Your task to perform on an android device: Open Google Maps and go to "Timeline" Image 0: 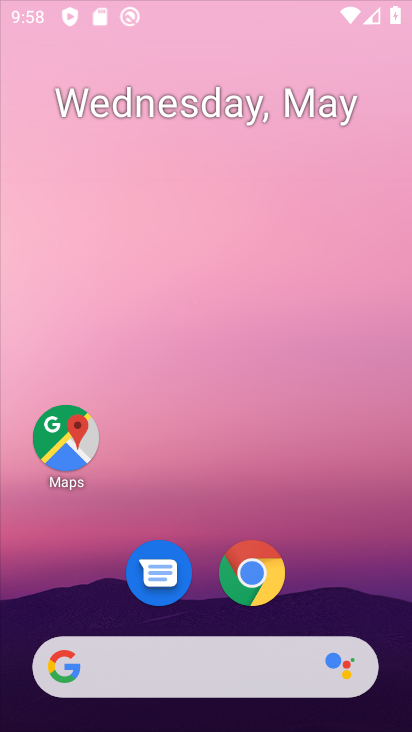
Step 0: drag from (311, 557) to (112, 86)
Your task to perform on an android device: Open Google Maps and go to "Timeline" Image 1: 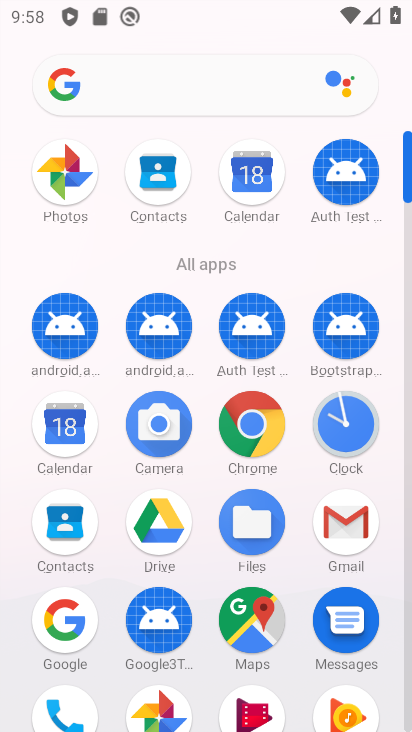
Step 1: click (251, 629)
Your task to perform on an android device: Open Google Maps and go to "Timeline" Image 2: 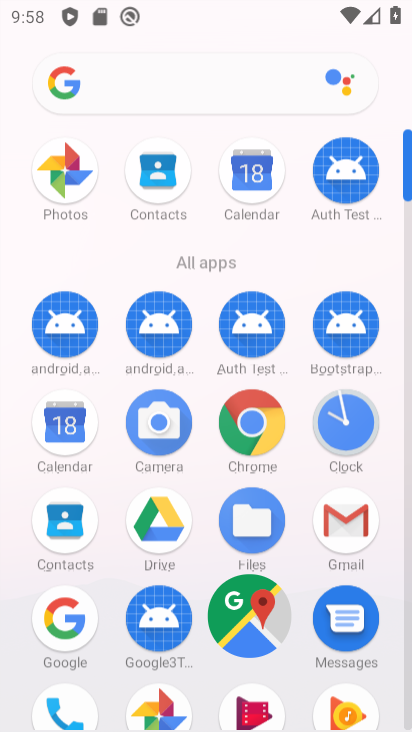
Step 2: click (251, 629)
Your task to perform on an android device: Open Google Maps and go to "Timeline" Image 3: 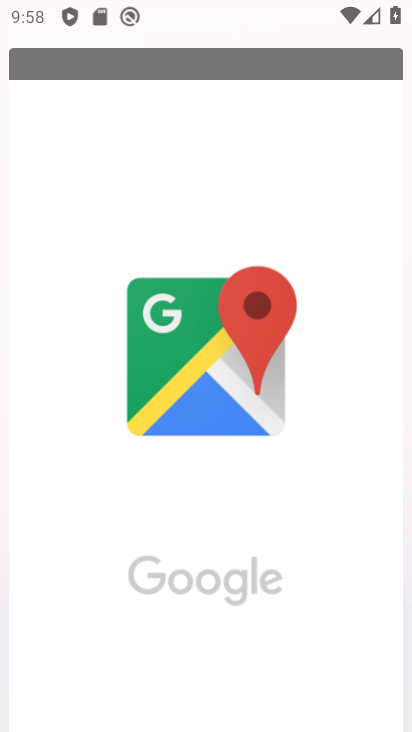
Step 3: click (251, 629)
Your task to perform on an android device: Open Google Maps and go to "Timeline" Image 4: 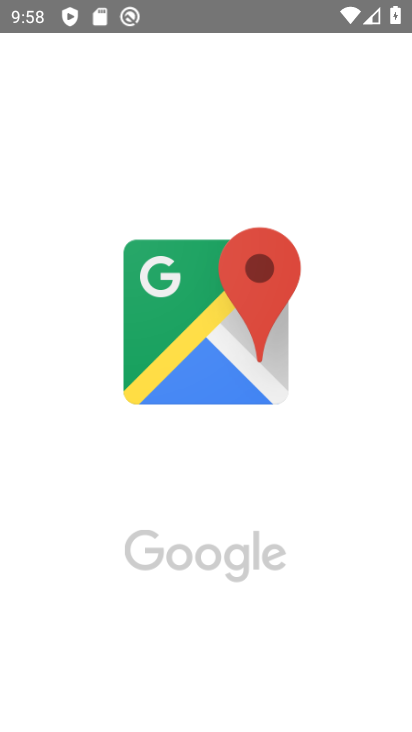
Step 4: click (251, 629)
Your task to perform on an android device: Open Google Maps and go to "Timeline" Image 5: 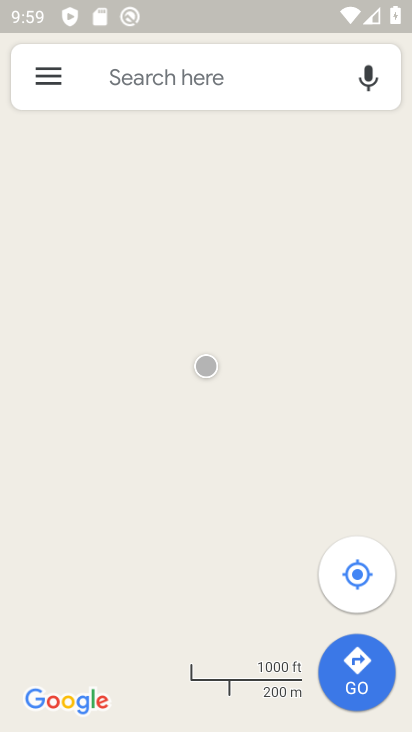
Step 5: click (51, 66)
Your task to perform on an android device: Open Google Maps and go to "Timeline" Image 6: 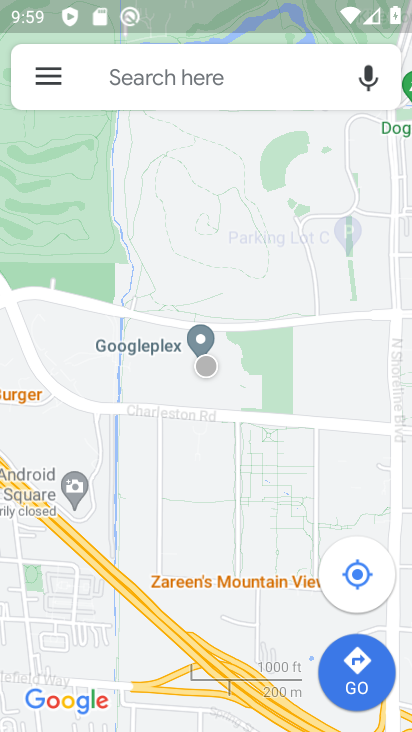
Step 6: click (59, 76)
Your task to perform on an android device: Open Google Maps and go to "Timeline" Image 7: 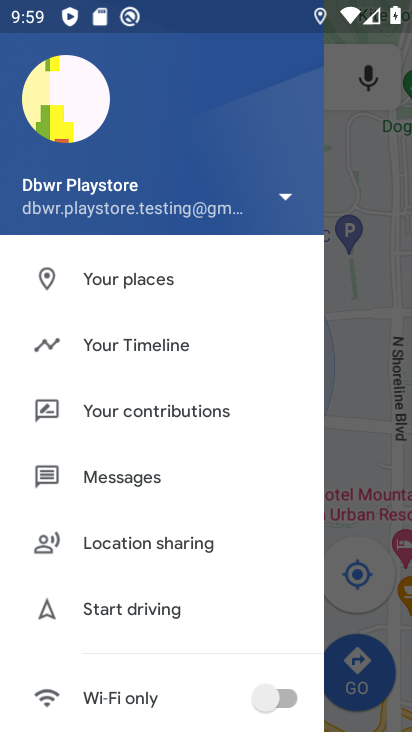
Step 7: click (138, 343)
Your task to perform on an android device: Open Google Maps and go to "Timeline" Image 8: 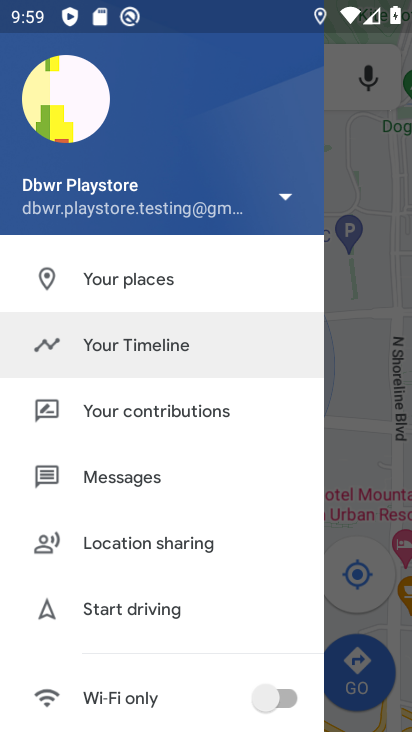
Step 8: click (139, 332)
Your task to perform on an android device: Open Google Maps and go to "Timeline" Image 9: 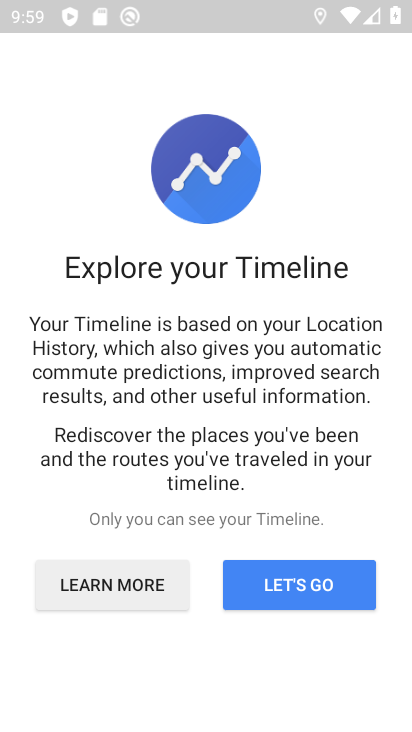
Step 9: click (303, 579)
Your task to perform on an android device: Open Google Maps and go to "Timeline" Image 10: 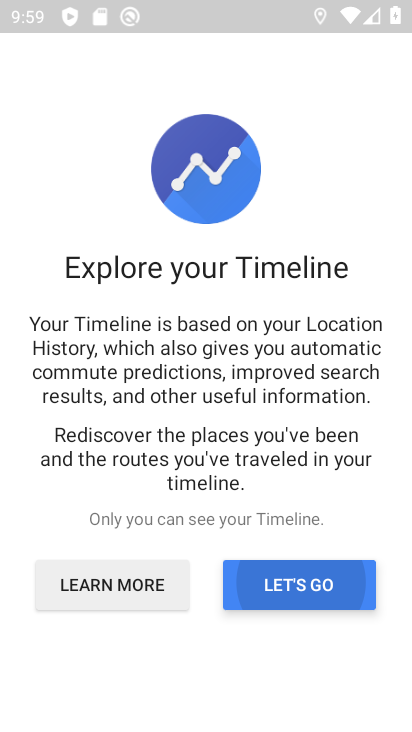
Step 10: click (312, 585)
Your task to perform on an android device: Open Google Maps and go to "Timeline" Image 11: 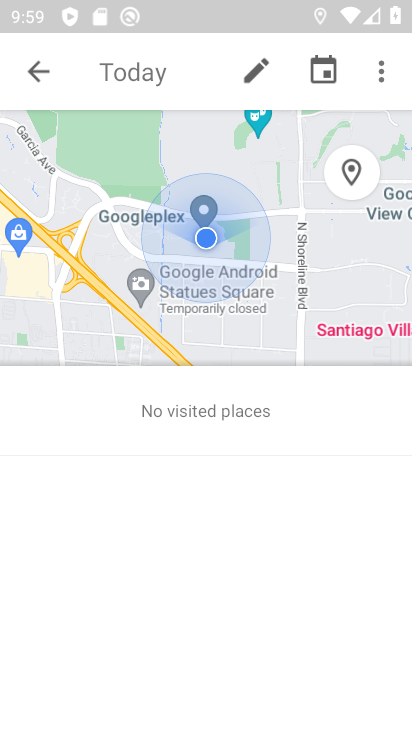
Step 11: click (42, 71)
Your task to perform on an android device: Open Google Maps and go to "Timeline" Image 12: 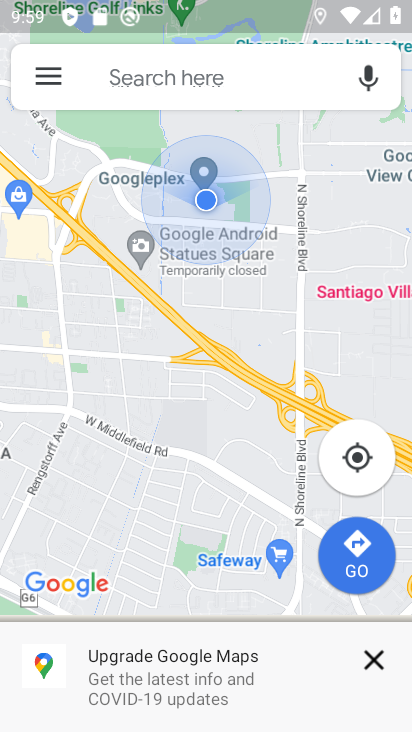
Step 12: click (51, 76)
Your task to perform on an android device: Open Google Maps and go to "Timeline" Image 13: 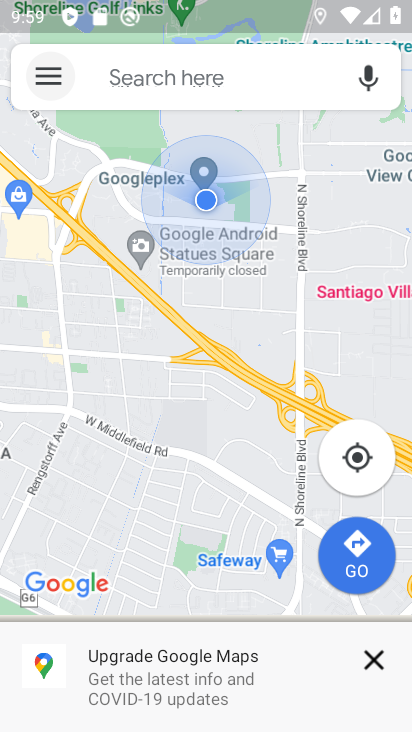
Step 13: click (51, 76)
Your task to perform on an android device: Open Google Maps and go to "Timeline" Image 14: 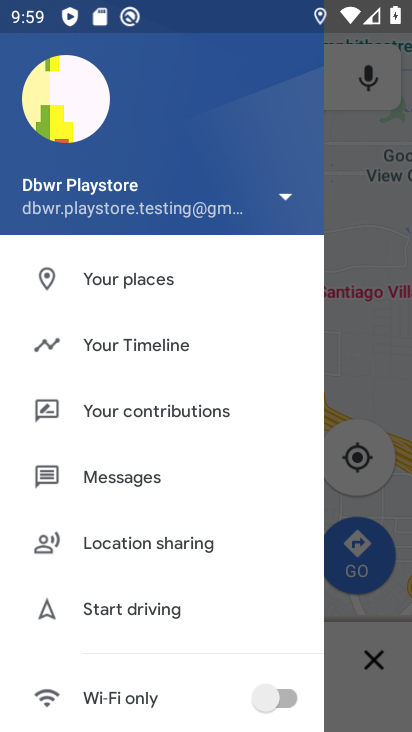
Step 14: click (149, 338)
Your task to perform on an android device: Open Google Maps and go to "Timeline" Image 15: 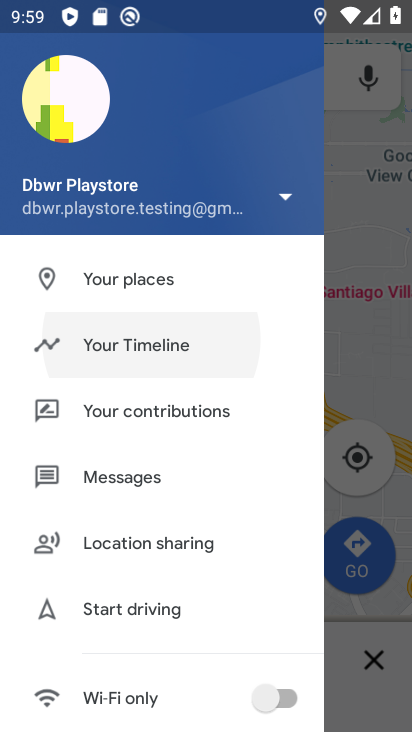
Step 15: click (149, 338)
Your task to perform on an android device: Open Google Maps and go to "Timeline" Image 16: 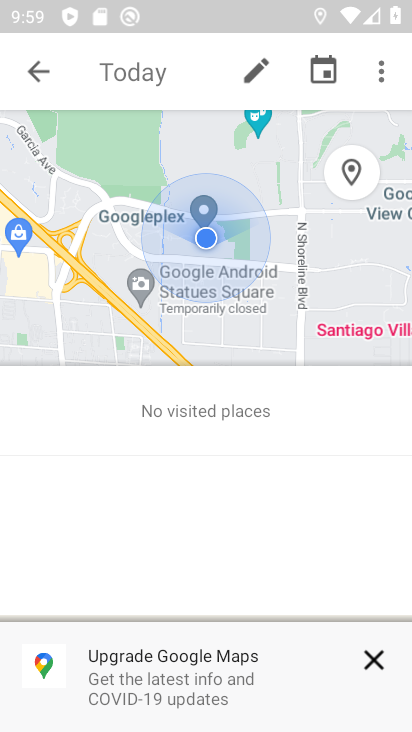
Step 16: click (370, 88)
Your task to perform on an android device: Open Google Maps and go to "Timeline" Image 17: 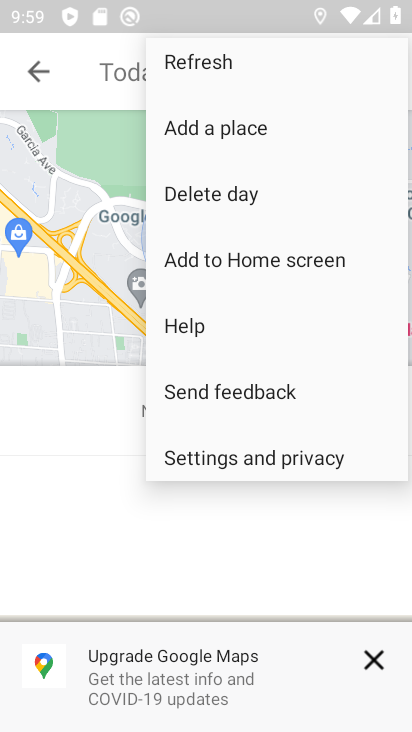
Step 17: click (379, 76)
Your task to perform on an android device: Open Google Maps and go to "Timeline" Image 18: 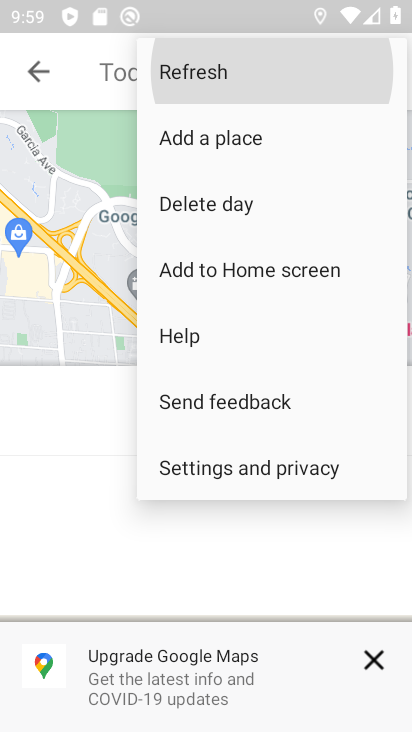
Step 18: click (379, 76)
Your task to perform on an android device: Open Google Maps and go to "Timeline" Image 19: 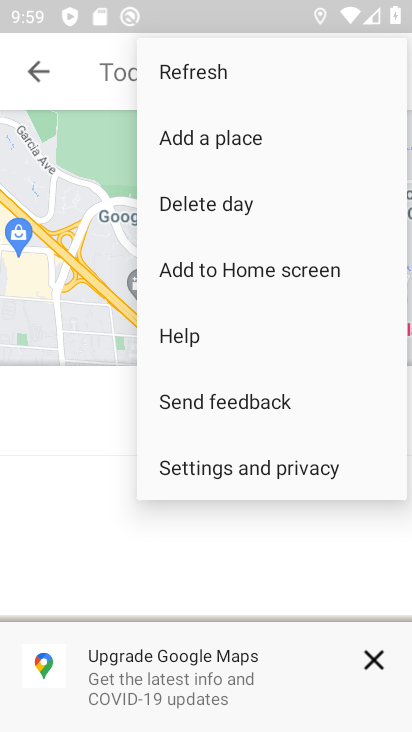
Step 19: click (238, 463)
Your task to perform on an android device: Open Google Maps and go to "Timeline" Image 20: 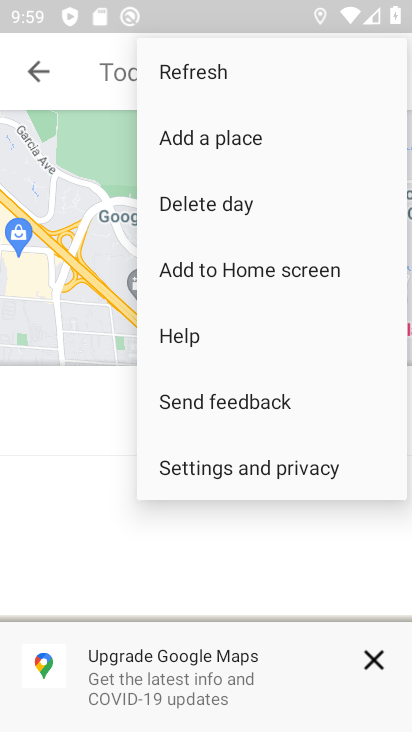
Step 20: click (238, 463)
Your task to perform on an android device: Open Google Maps and go to "Timeline" Image 21: 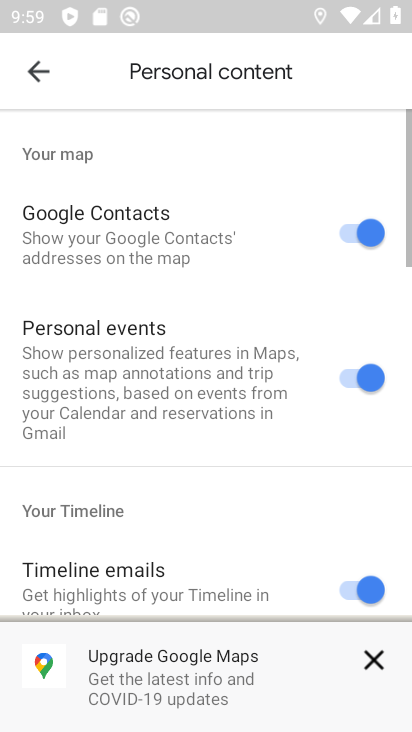
Step 21: click (237, 467)
Your task to perform on an android device: Open Google Maps and go to "Timeline" Image 22: 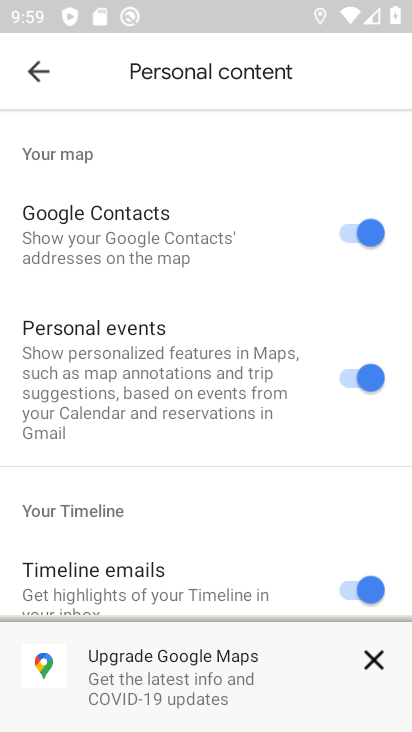
Step 22: task complete